Your task to perform on an android device: Open Maps and search for coffee Image 0: 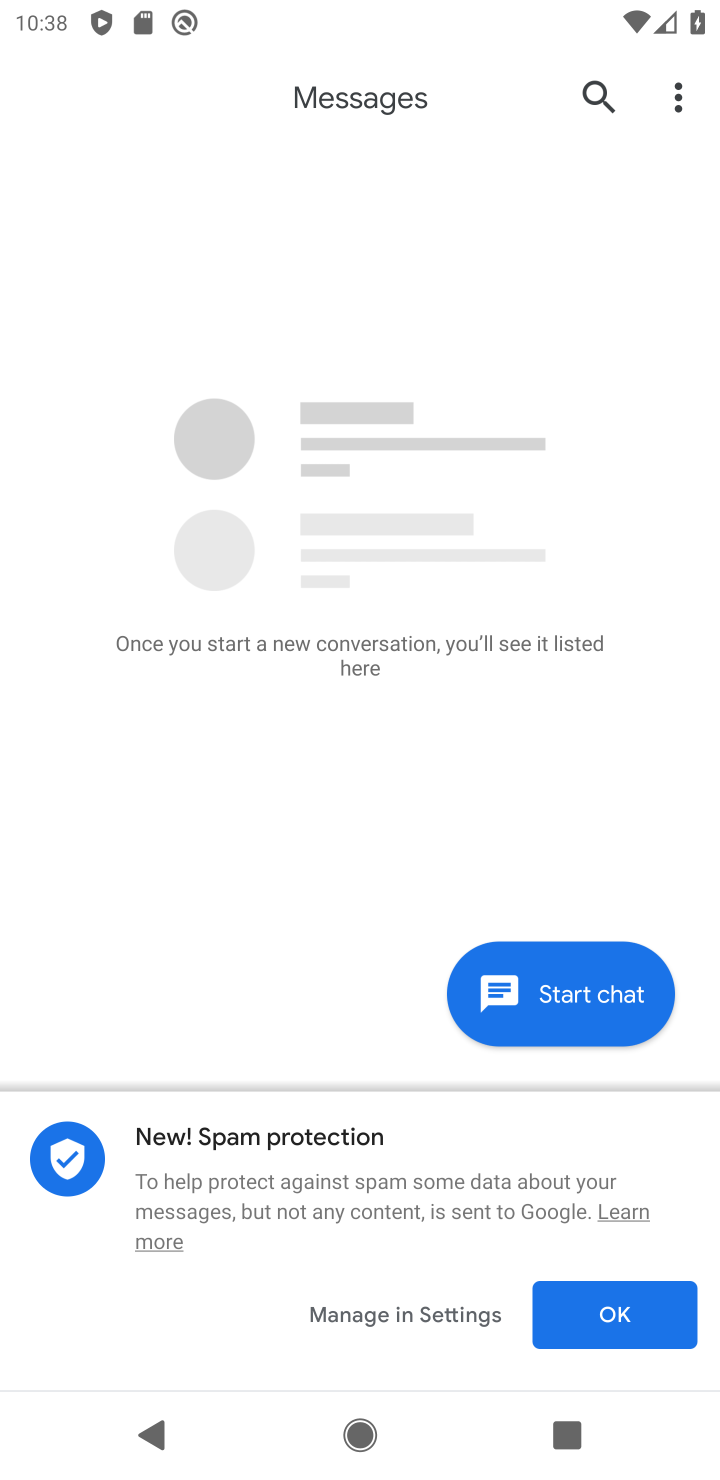
Step 0: press home button
Your task to perform on an android device: Open Maps and search for coffee Image 1: 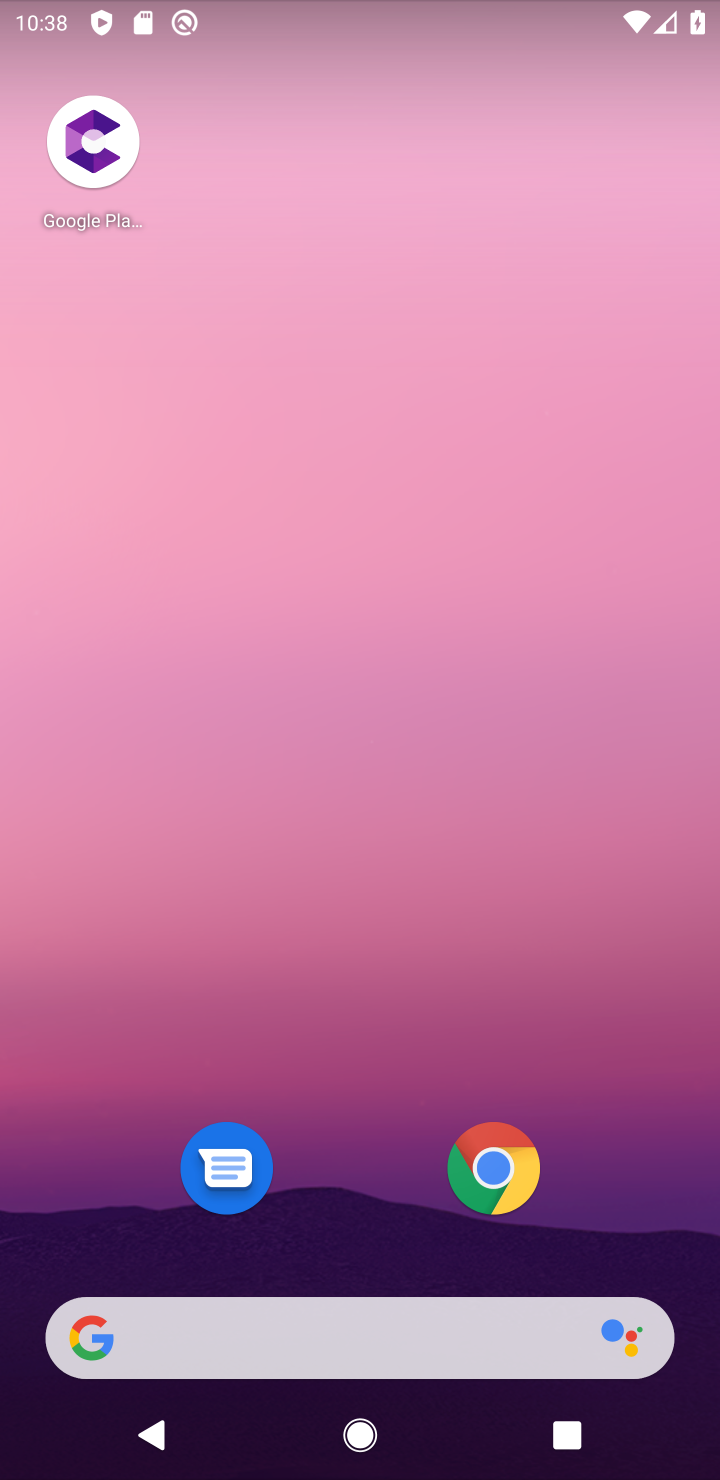
Step 1: drag from (592, 1107) to (428, 9)
Your task to perform on an android device: Open Maps and search for coffee Image 2: 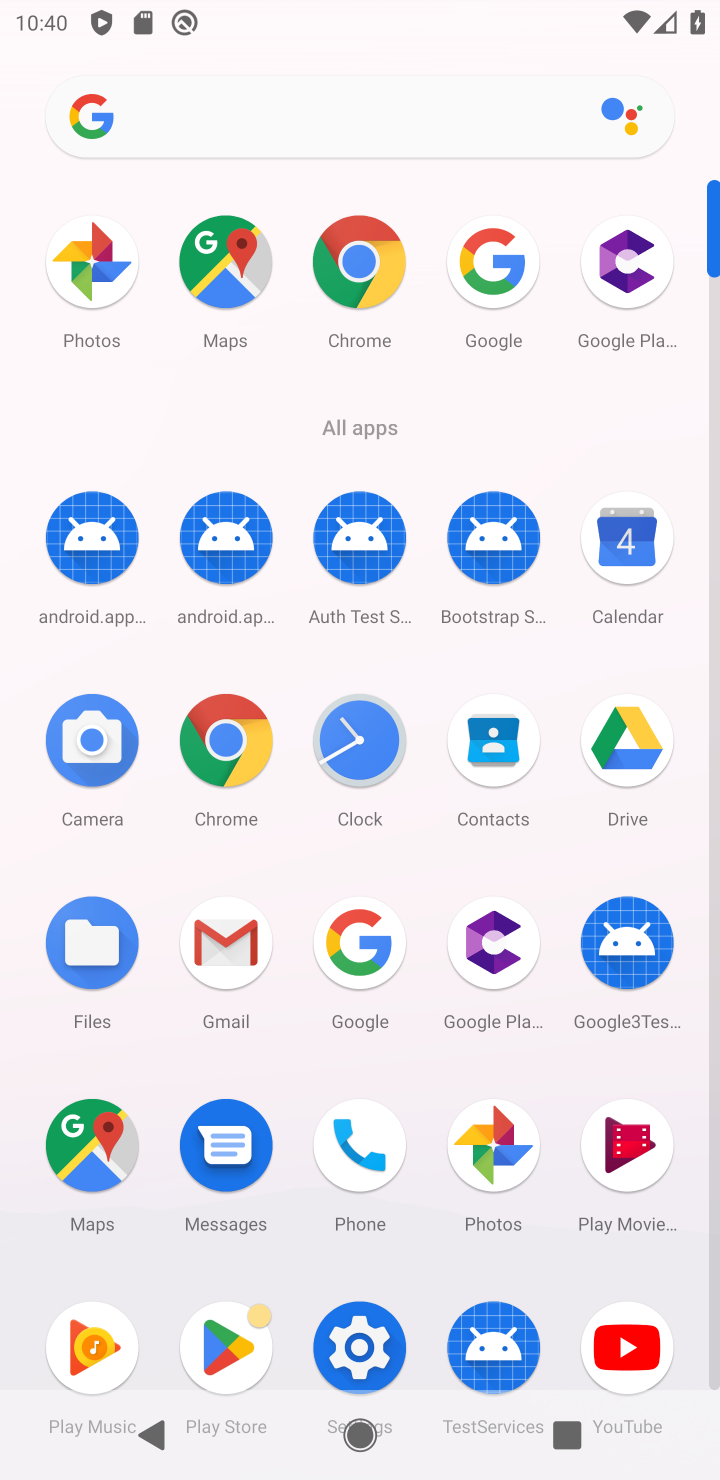
Step 2: click (96, 1167)
Your task to perform on an android device: Open Maps and search for coffee Image 3: 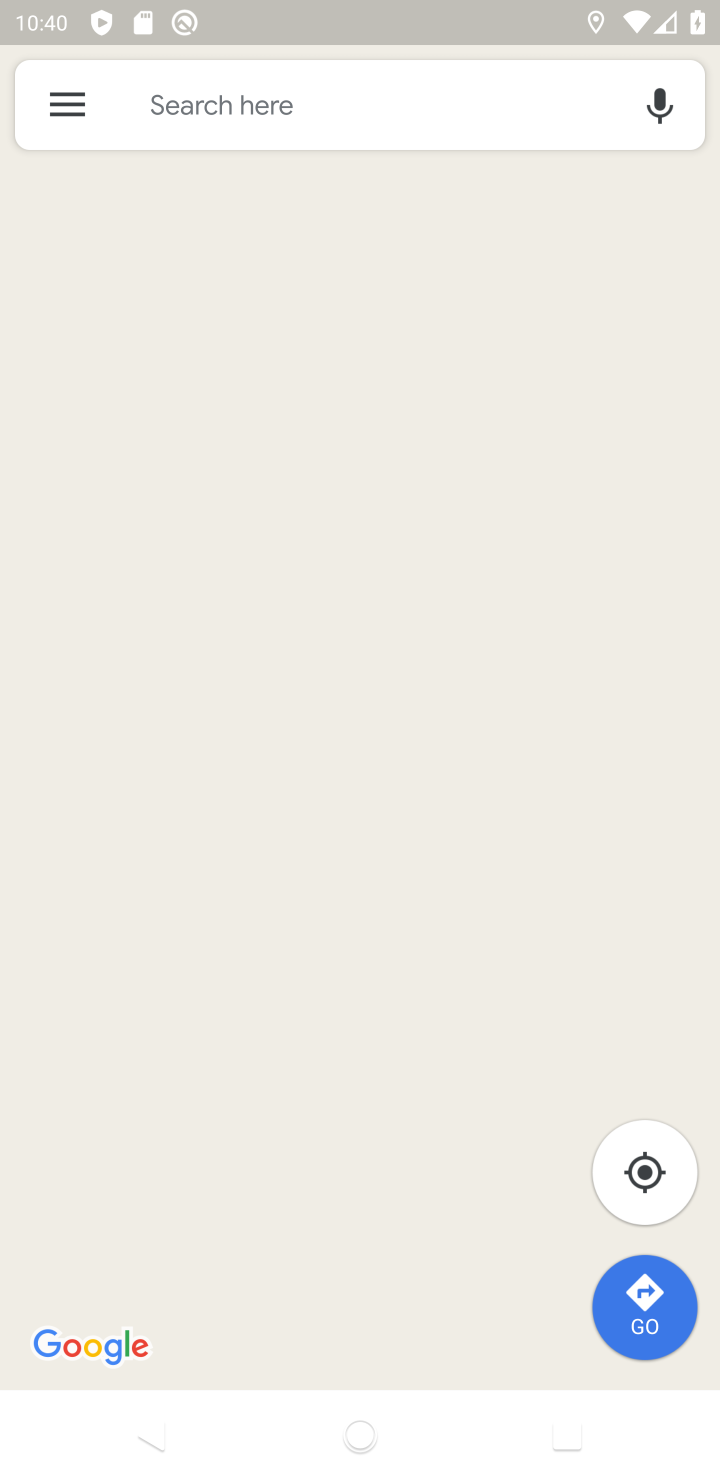
Step 3: click (236, 99)
Your task to perform on an android device: Open Maps and search for coffee Image 4: 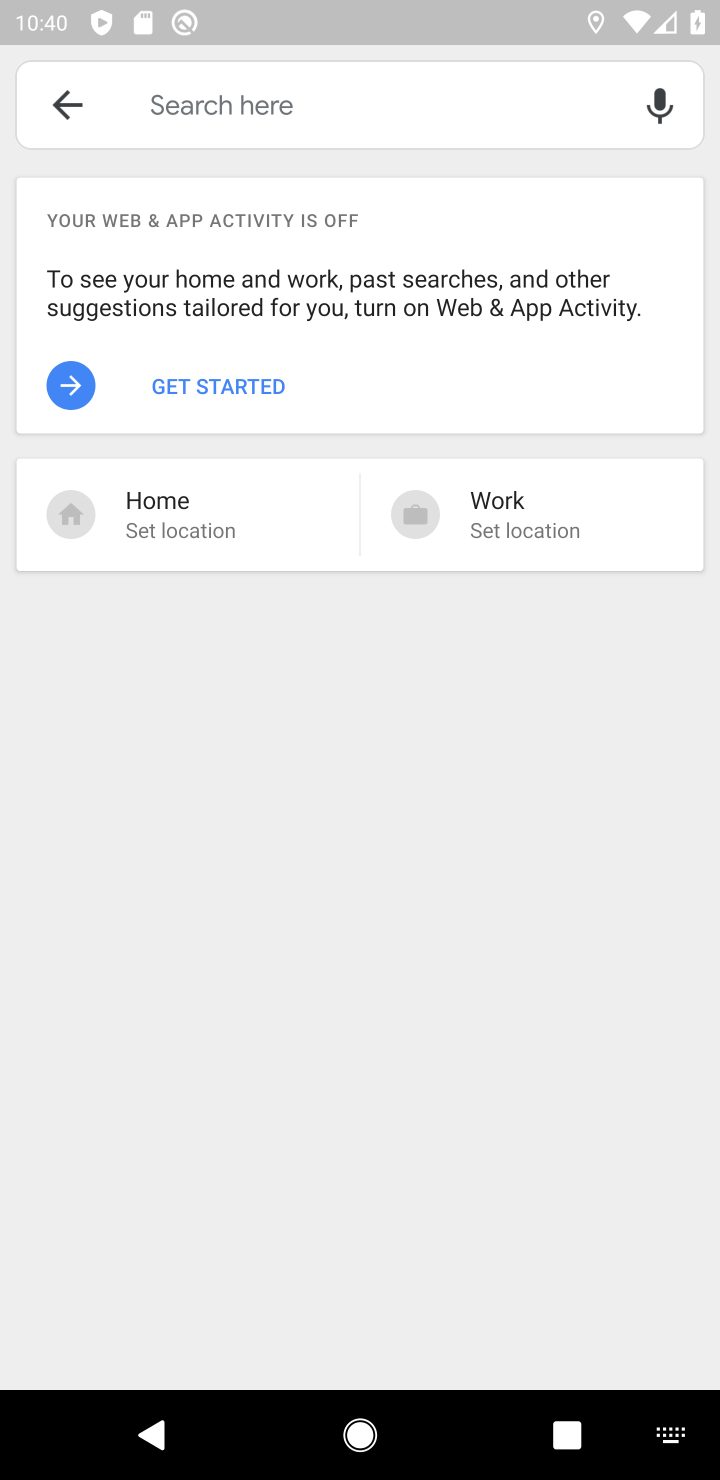
Step 4: click (192, 401)
Your task to perform on an android device: Open Maps and search for coffee Image 5: 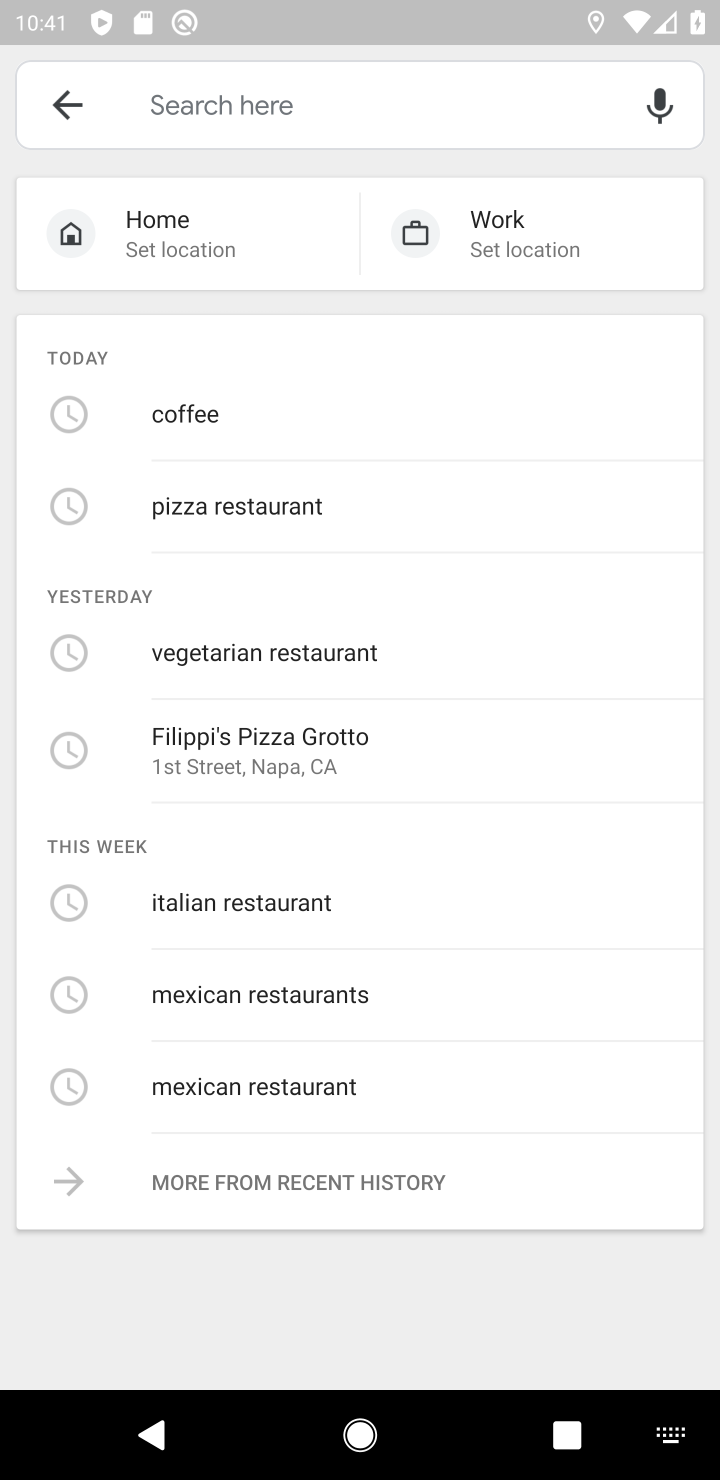
Step 5: click (224, 428)
Your task to perform on an android device: Open Maps and search for coffee Image 6: 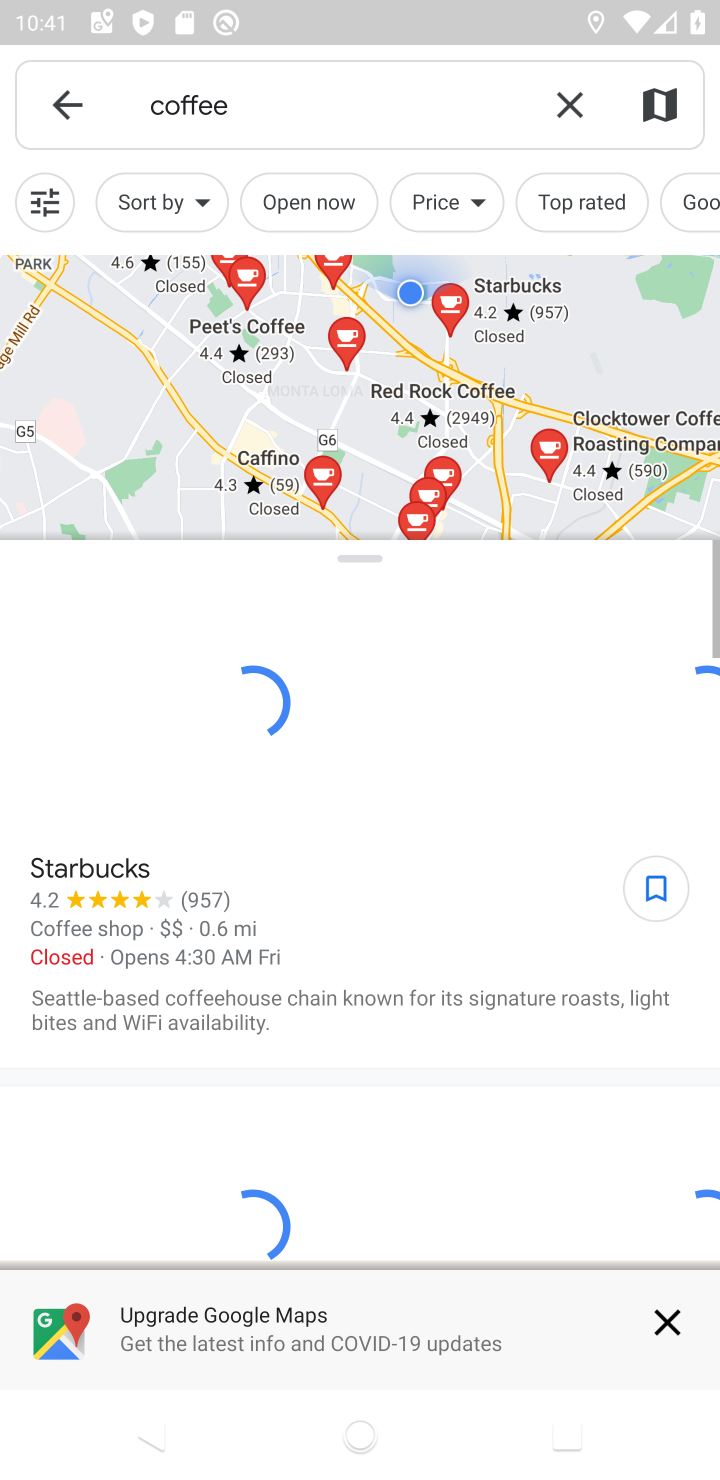
Step 6: task complete